Your task to perform on an android device: toggle translation in the chrome app Image 0: 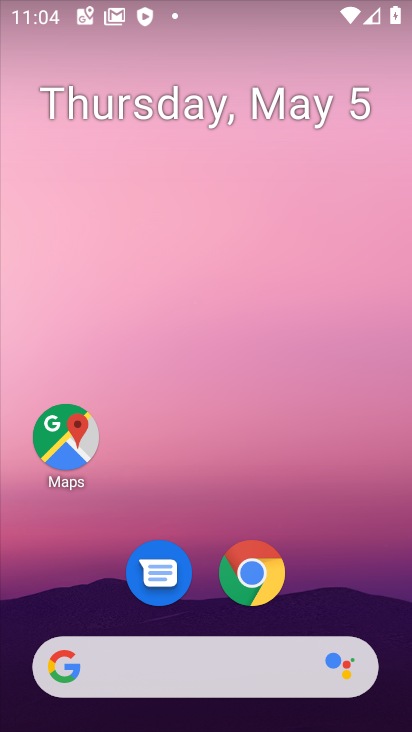
Step 0: drag from (336, 524) to (318, 247)
Your task to perform on an android device: toggle translation in the chrome app Image 1: 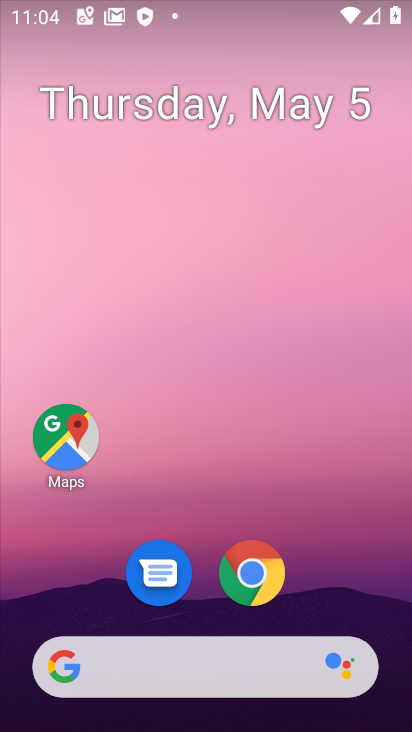
Step 1: drag from (320, 604) to (299, 227)
Your task to perform on an android device: toggle translation in the chrome app Image 2: 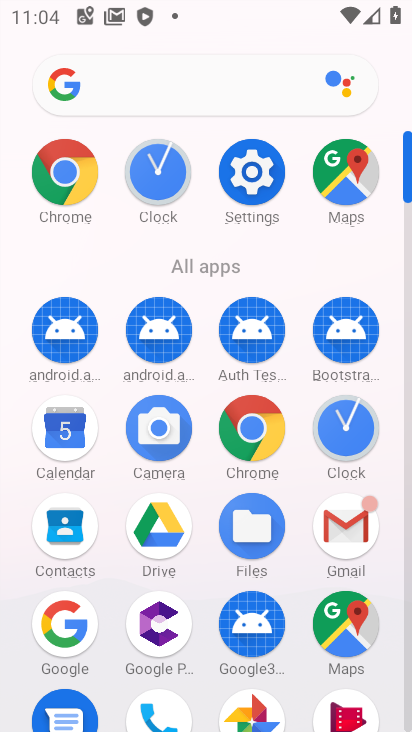
Step 2: click (240, 428)
Your task to perform on an android device: toggle translation in the chrome app Image 3: 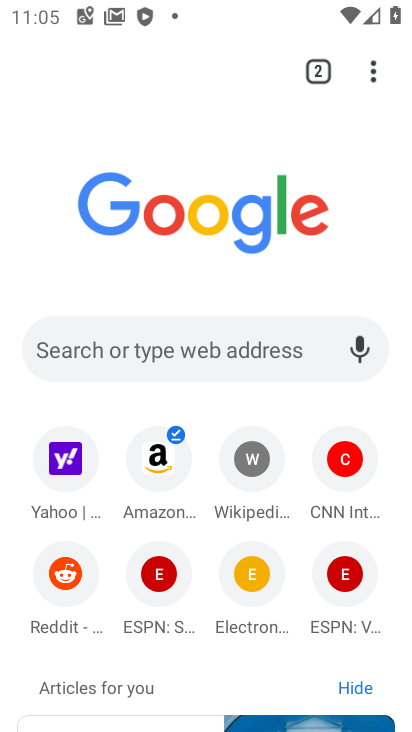
Step 3: click (361, 66)
Your task to perform on an android device: toggle translation in the chrome app Image 4: 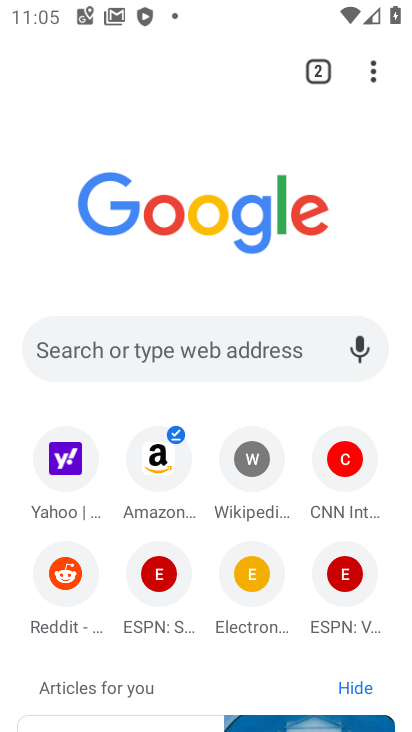
Step 4: click (373, 72)
Your task to perform on an android device: toggle translation in the chrome app Image 5: 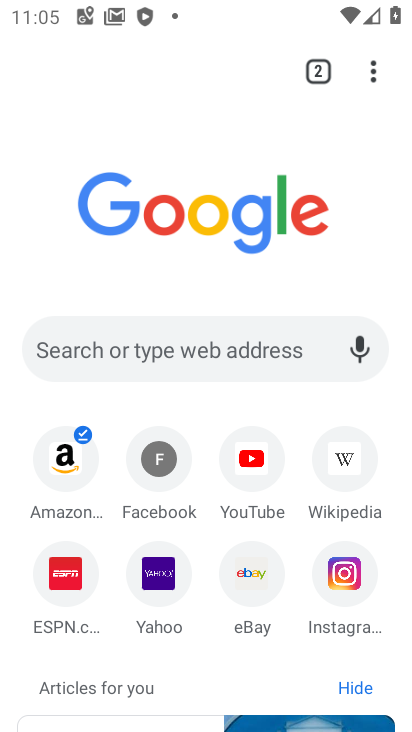
Step 5: click (367, 76)
Your task to perform on an android device: toggle translation in the chrome app Image 6: 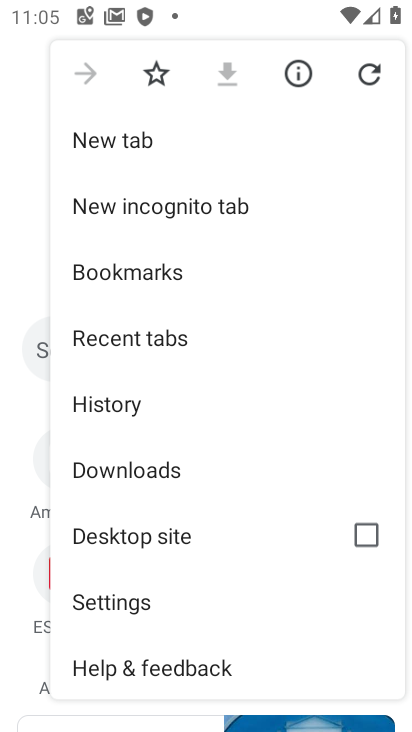
Step 6: click (156, 611)
Your task to perform on an android device: toggle translation in the chrome app Image 7: 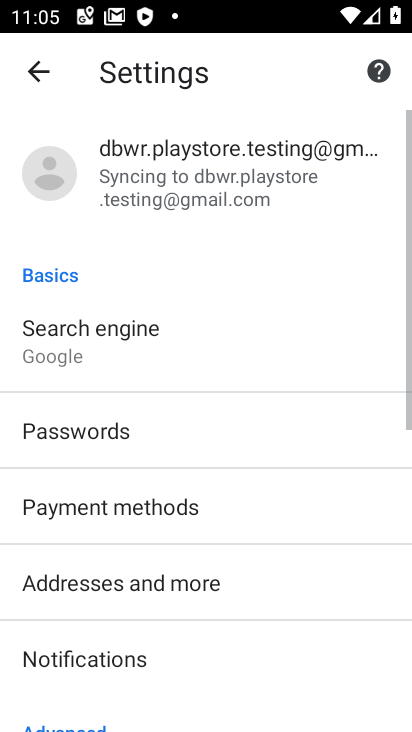
Step 7: drag from (199, 632) to (279, 191)
Your task to perform on an android device: toggle translation in the chrome app Image 8: 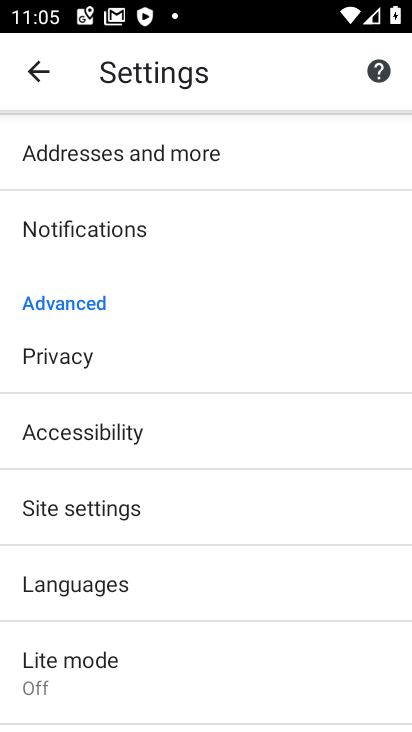
Step 8: click (137, 596)
Your task to perform on an android device: toggle translation in the chrome app Image 9: 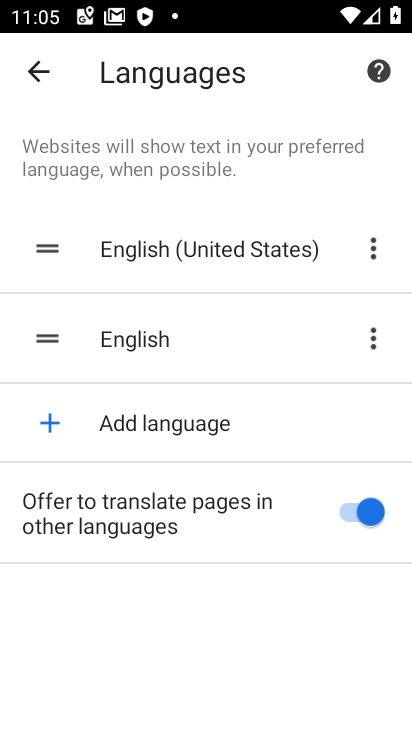
Step 9: click (359, 509)
Your task to perform on an android device: toggle translation in the chrome app Image 10: 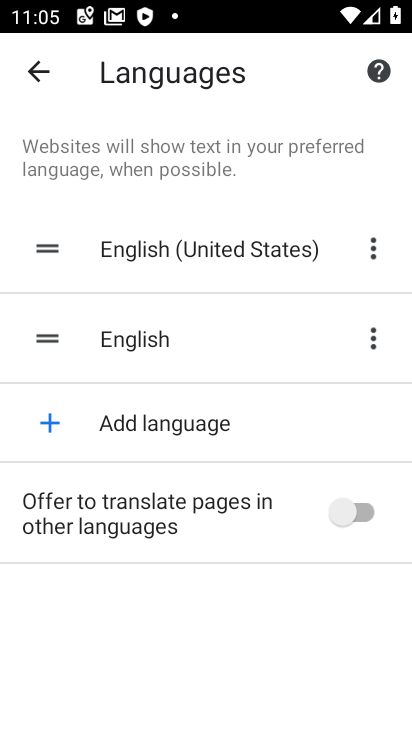
Step 10: task complete